Your task to perform on an android device: uninstall "Facebook Messenger" Image 0: 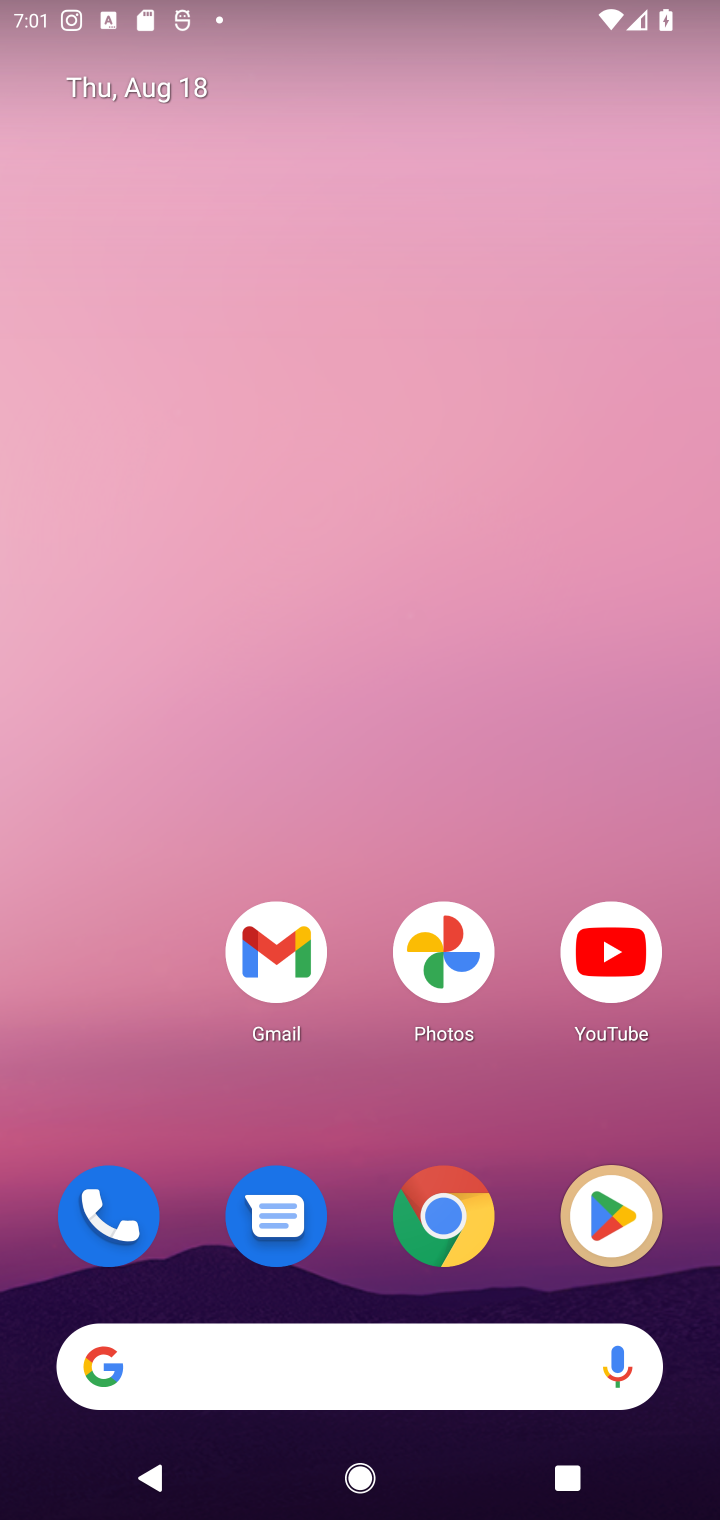
Step 0: click (589, 1187)
Your task to perform on an android device: uninstall "Facebook Messenger" Image 1: 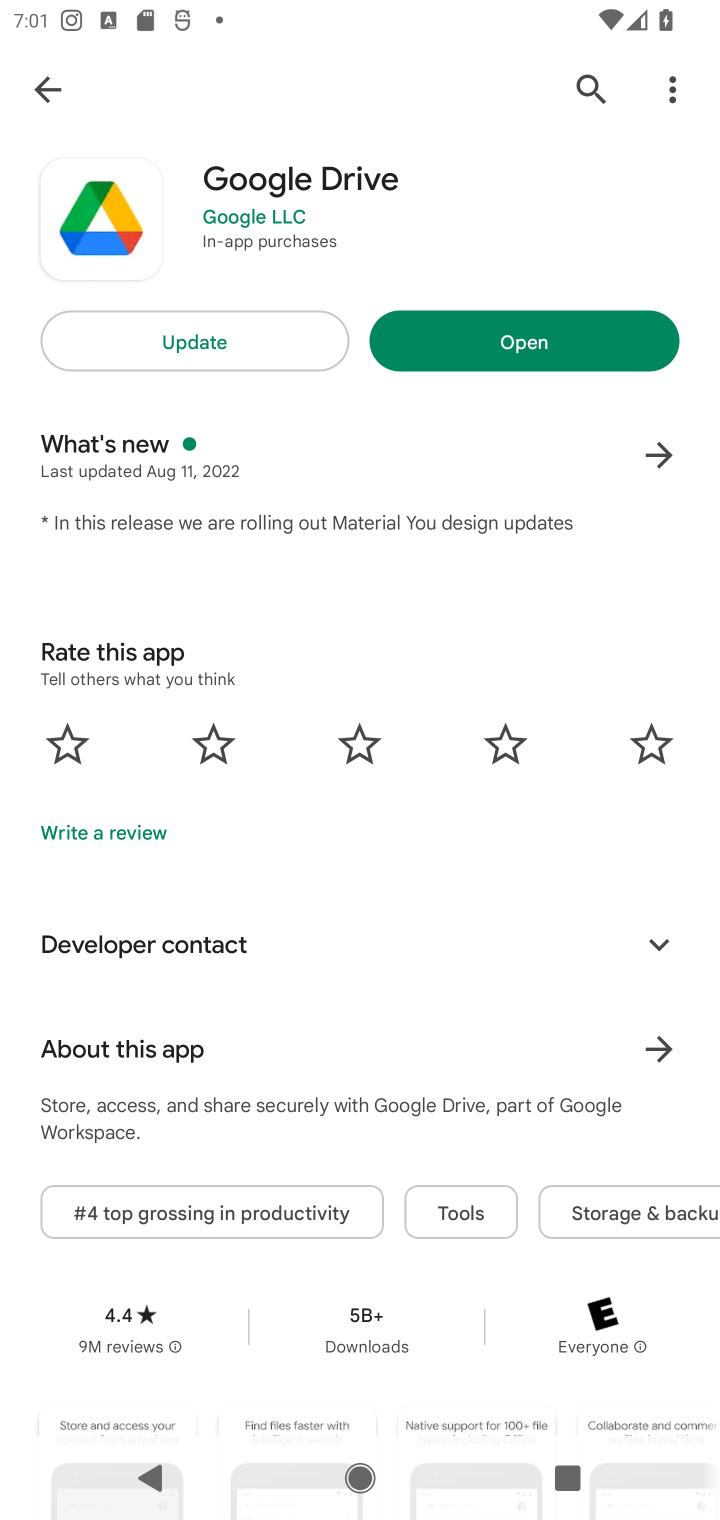
Step 1: click (590, 84)
Your task to perform on an android device: uninstall "Facebook Messenger" Image 2: 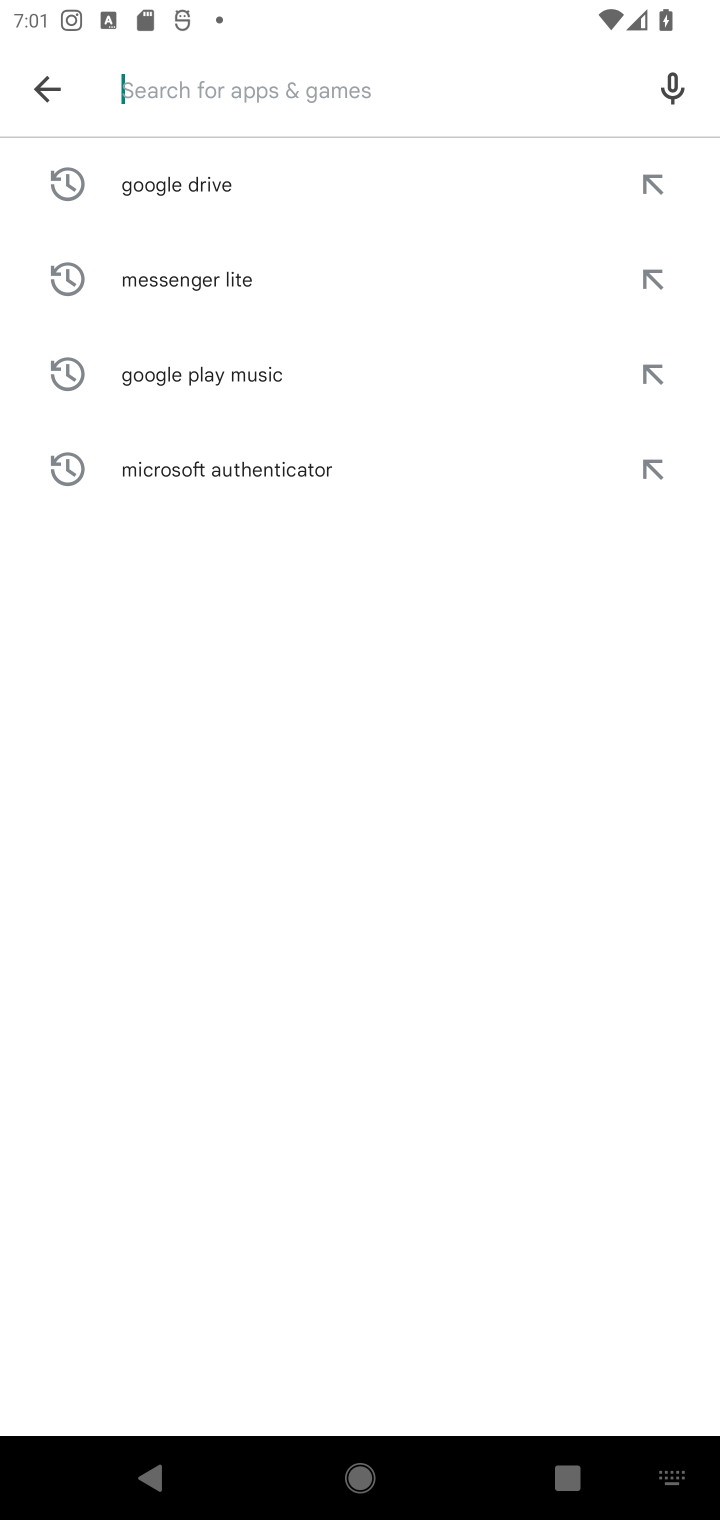
Step 2: type "Facebook Messenger"
Your task to perform on an android device: uninstall "Facebook Messenger" Image 3: 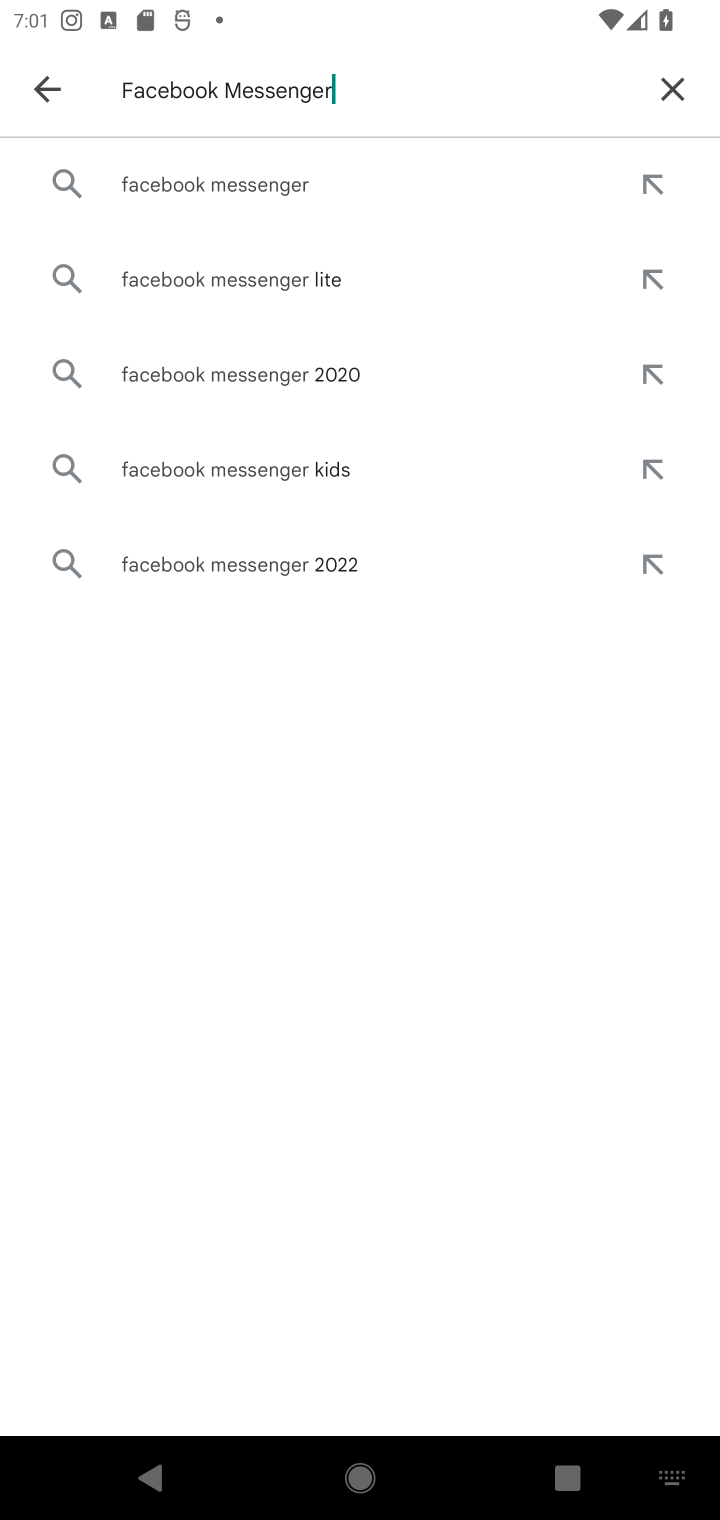
Step 3: click (253, 184)
Your task to perform on an android device: uninstall "Facebook Messenger" Image 4: 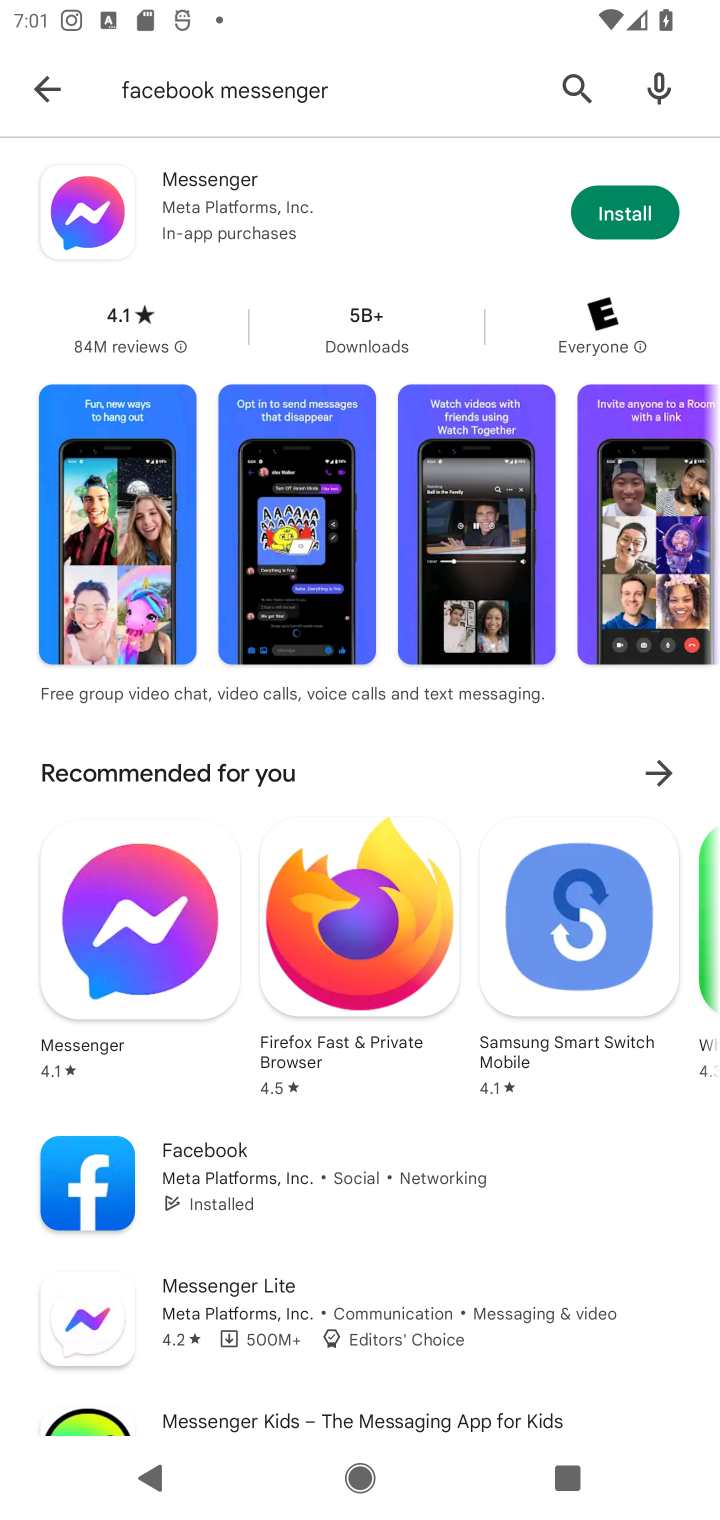
Step 4: click (360, 209)
Your task to perform on an android device: uninstall "Facebook Messenger" Image 5: 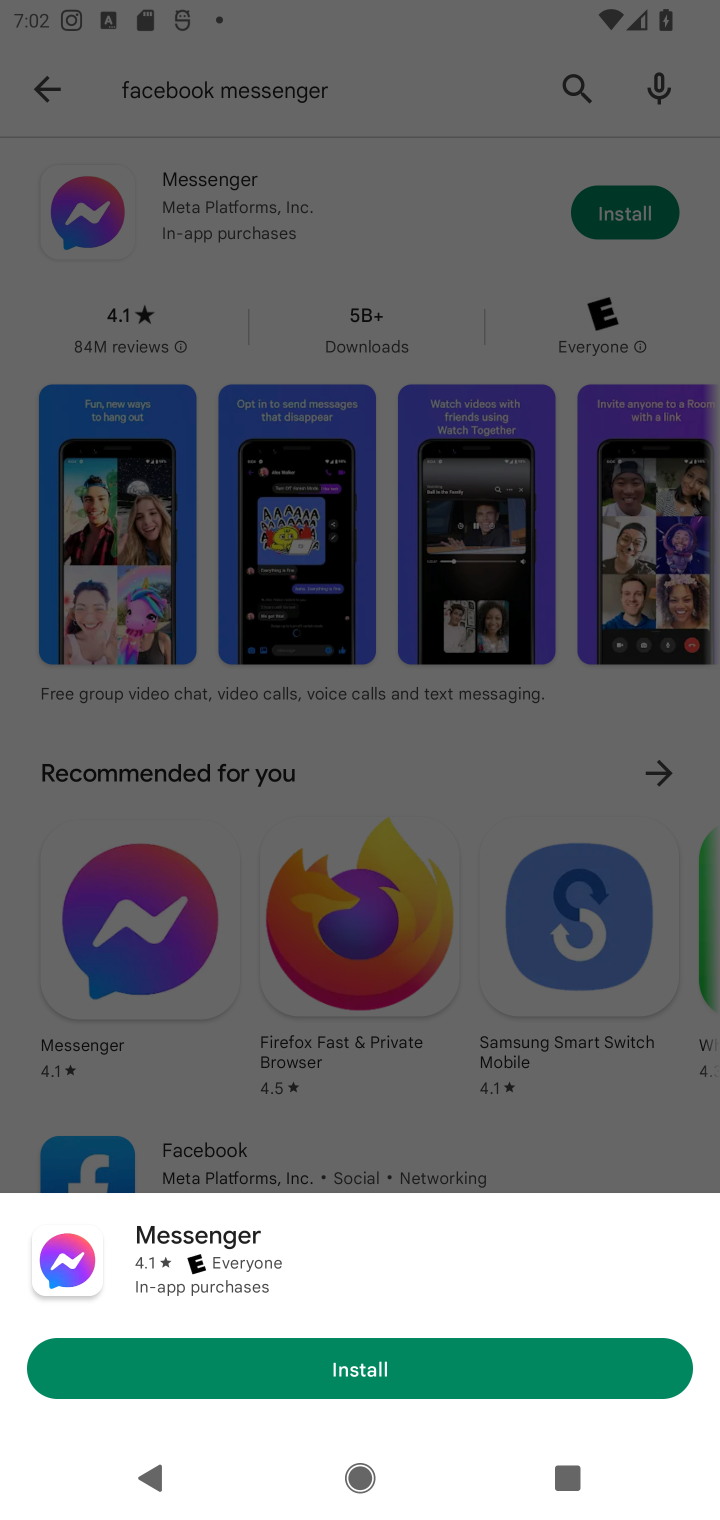
Step 5: click (347, 1253)
Your task to perform on an android device: uninstall "Facebook Messenger" Image 6: 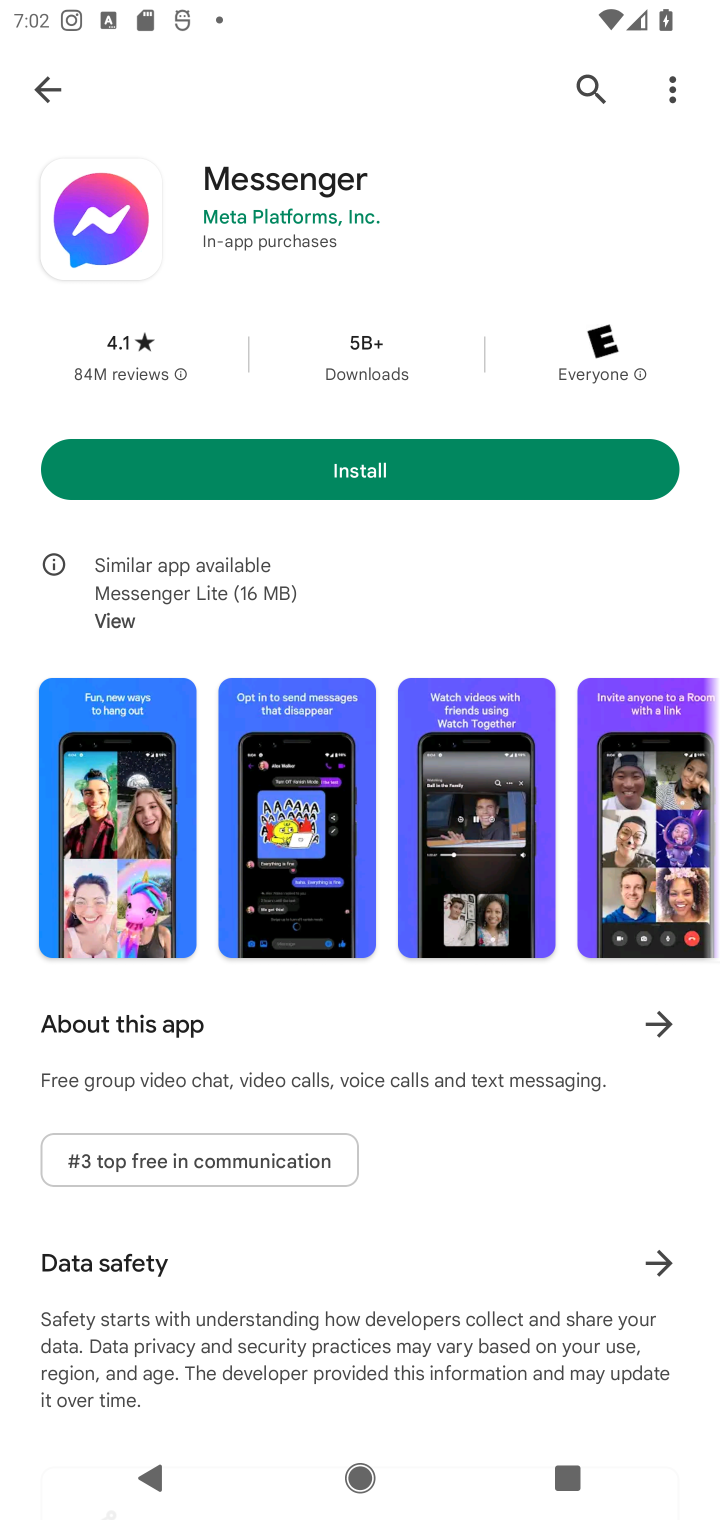
Step 6: task complete